Your task to perform on an android device: Do I have any events tomorrow? Image 0: 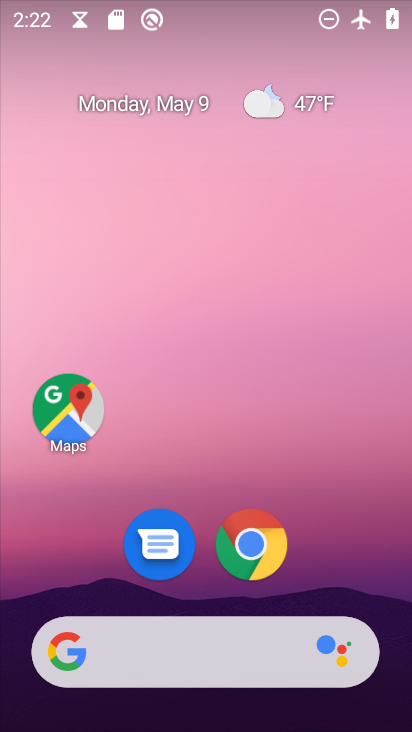
Step 0: drag from (366, 469) to (339, 34)
Your task to perform on an android device: Do I have any events tomorrow? Image 1: 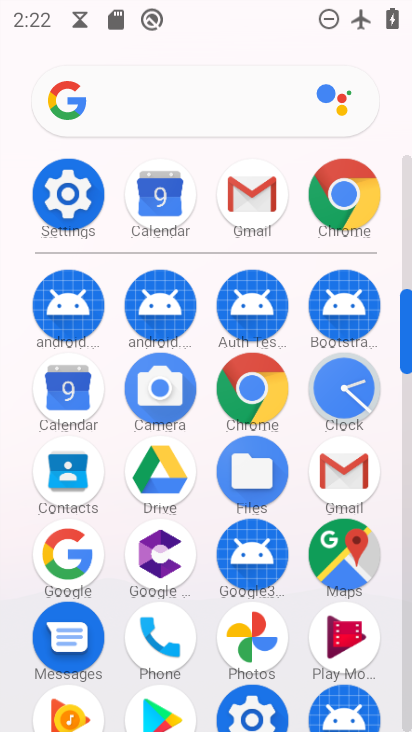
Step 1: click (93, 392)
Your task to perform on an android device: Do I have any events tomorrow? Image 2: 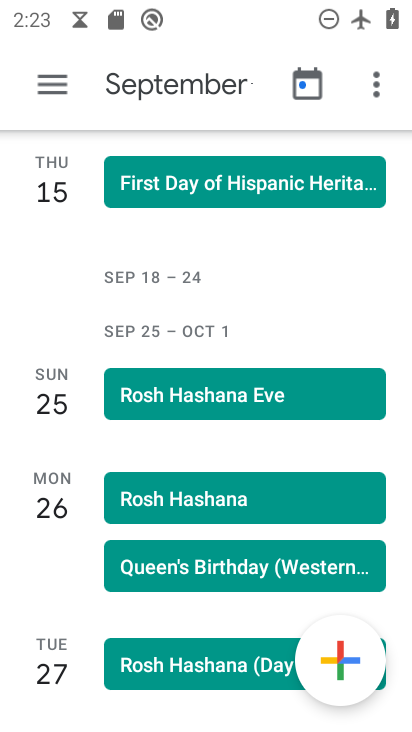
Step 2: click (183, 79)
Your task to perform on an android device: Do I have any events tomorrow? Image 3: 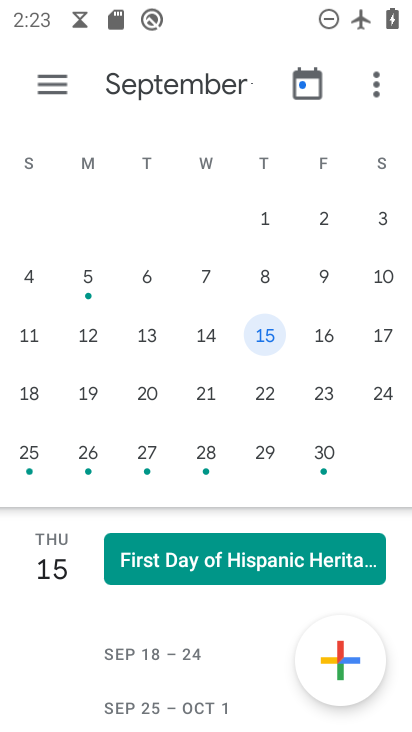
Step 3: click (333, 345)
Your task to perform on an android device: Do I have any events tomorrow? Image 4: 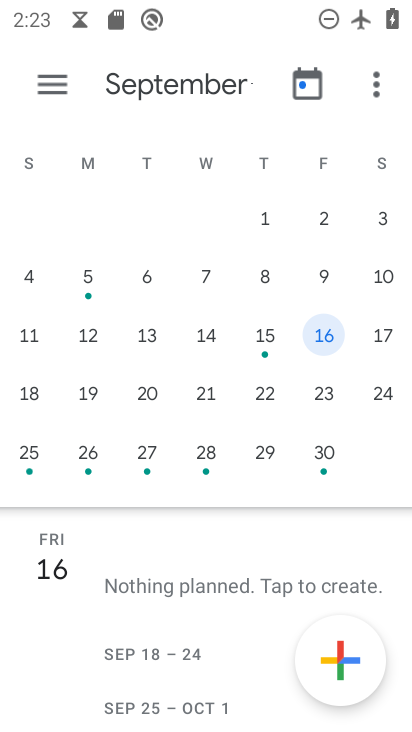
Step 4: task complete